Your task to perform on an android device: turn on javascript in the chrome app Image 0: 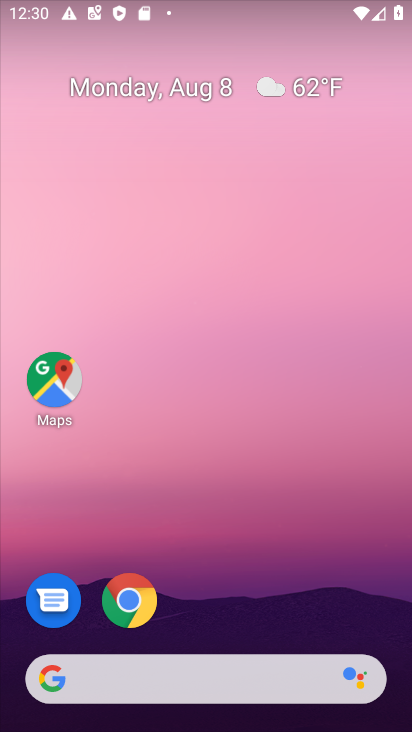
Step 0: click (143, 589)
Your task to perform on an android device: turn on javascript in the chrome app Image 1: 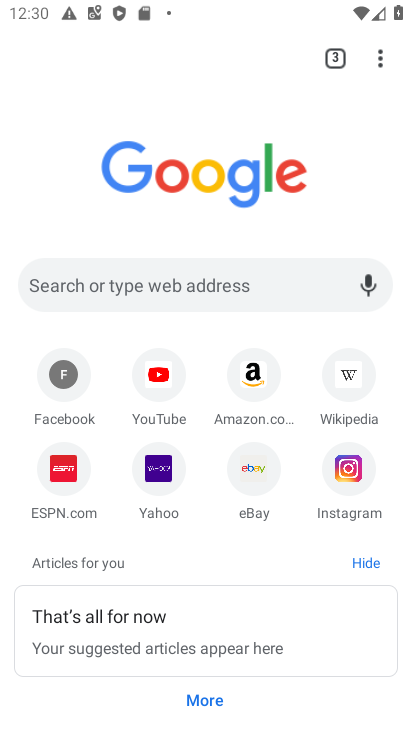
Step 1: click (380, 70)
Your task to perform on an android device: turn on javascript in the chrome app Image 2: 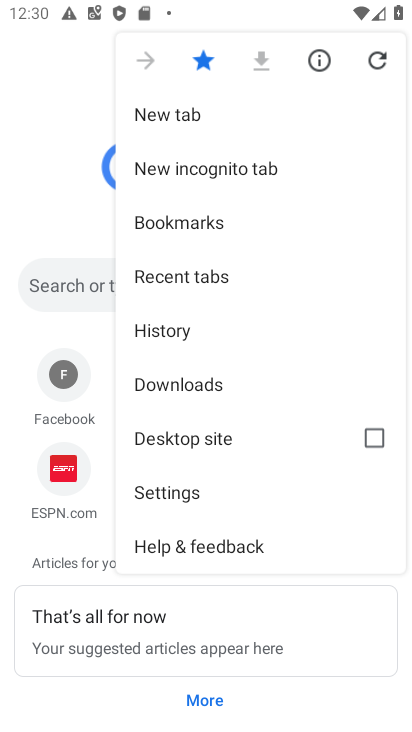
Step 2: click (191, 503)
Your task to perform on an android device: turn on javascript in the chrome app Image 3: 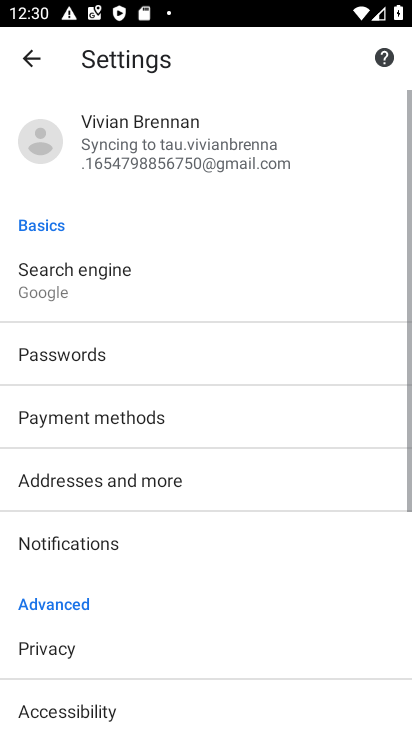
Step 3: drag from (171, 607) to (215, 339)
Your task to perform on an android device: turn on javascript in the chrome app Image 4: 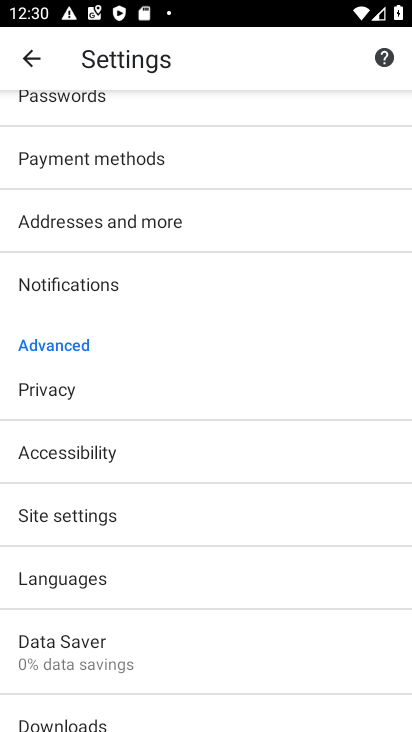
Step 4: click (103, 526)
Your task to perform on an android device: turn on javascript in the chrome app Image 5: 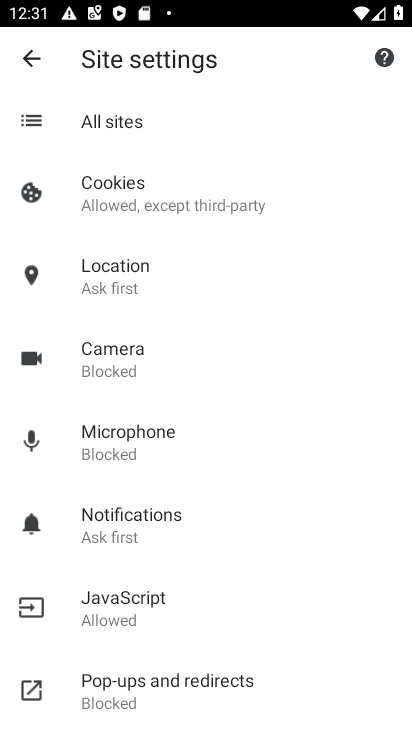
Step 5: click (173, 583)
Your task to perform on an android device: turn on javascript in the chrome app Image 6: 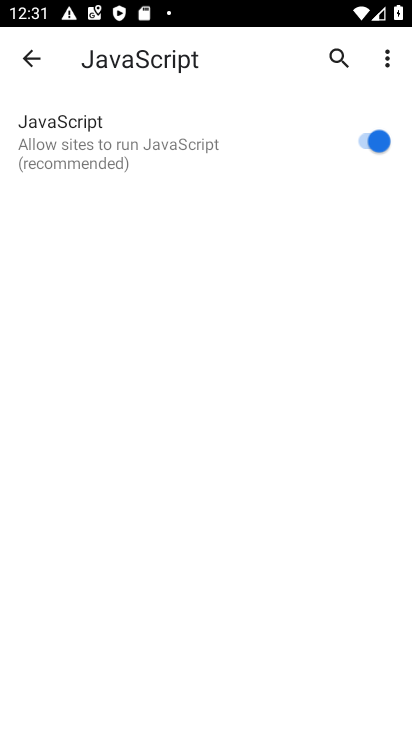
Step 6: task complete